Your task to perform on an android device: toggle wifi Image 0: 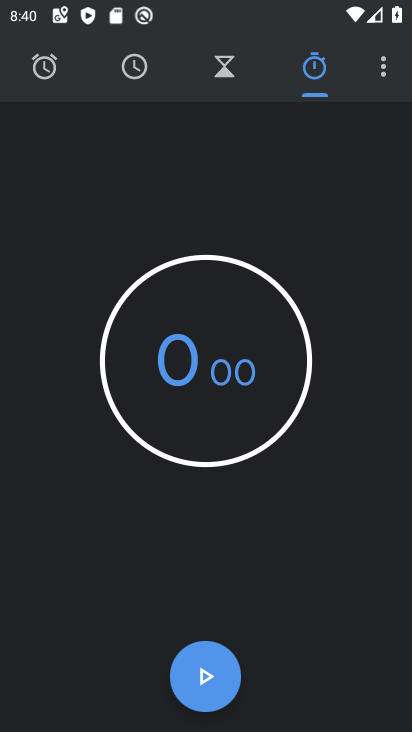
Step 0: press home button
Your task to perform on an android device: toggle wifi Image 1: 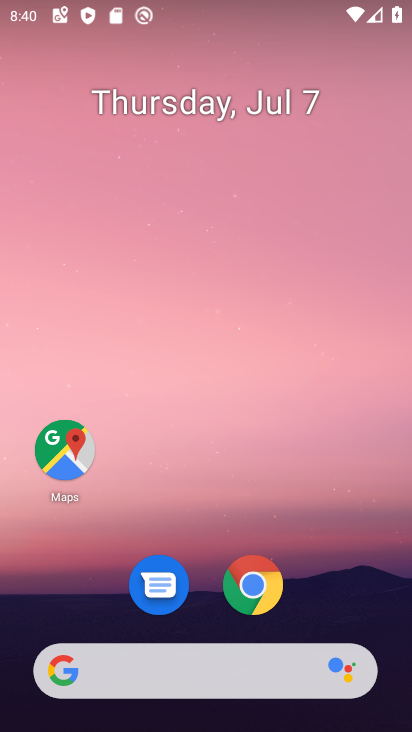
Step 1: drag from (242, 500) to (228, 18)
Your task to perform on an android device: toggle wifi Image 2: 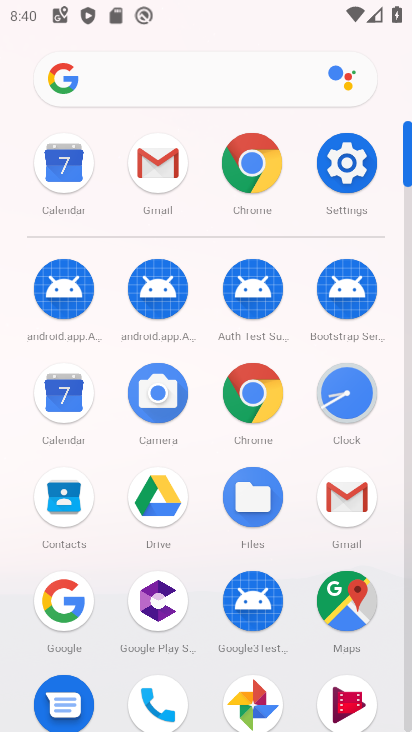
Step 2: click (352, 167)
Your task to perform on an android device: toggle wifi Image 3: 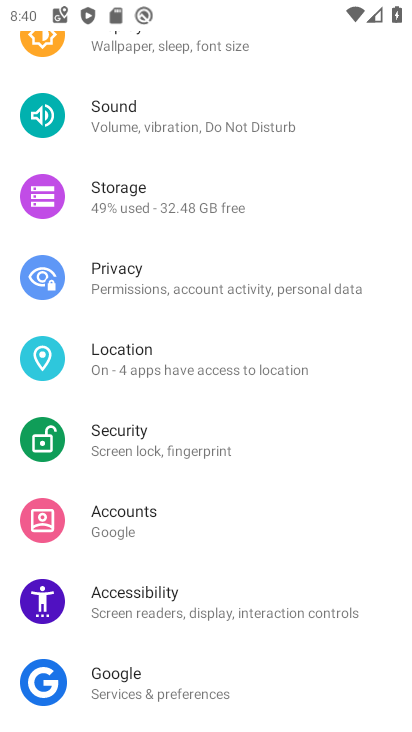
Step 3: drag from (259, 360) to (247, 704)
Your task to perform on an android device: toggle wifi Image 4: 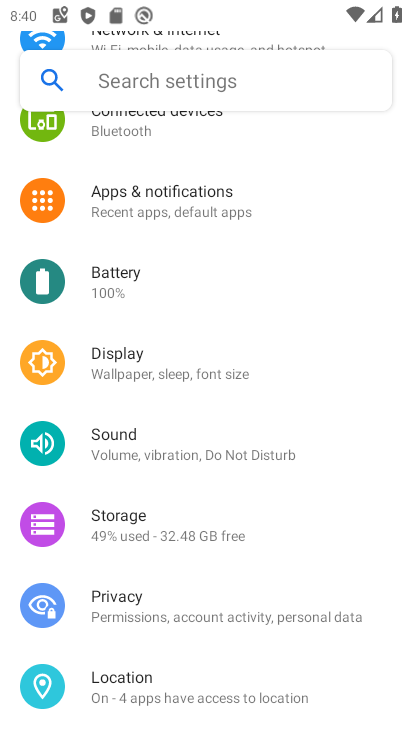
Step 4: drag from (198, 279) to (212, 664)
Your task to perform on an android device: toggle wifi Image 5: 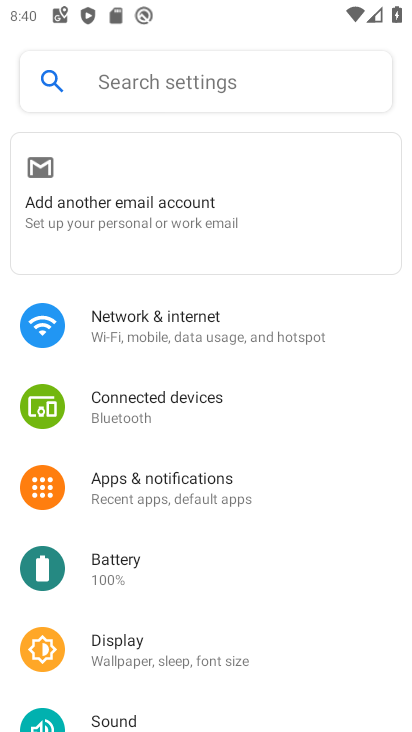
Step 5: click (201, 327)
Your task to perform on an android device: toggle wifi Image 6: 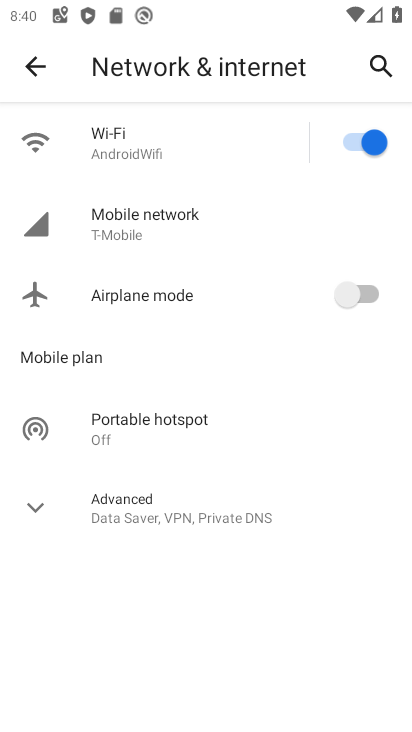
Step 6: click (350, 140)
Your task to perform on an android device: toggle wifi Image 7: 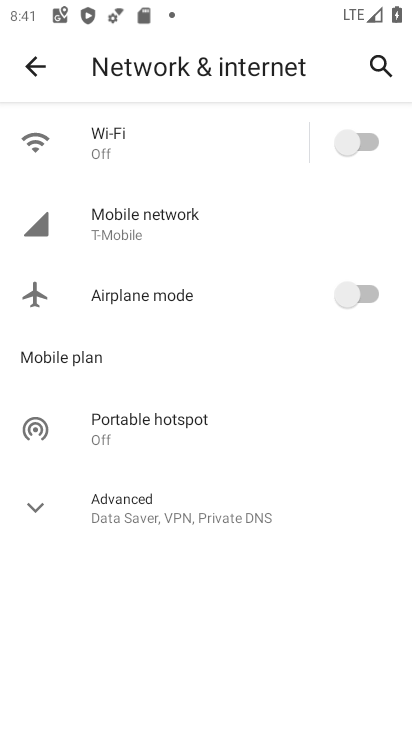
Step 7: task complete